Your task to perform on an android device: Go to Wikipedia Image 0: 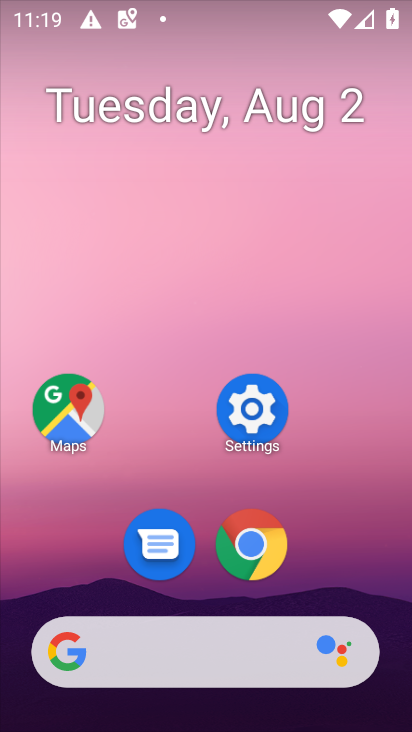
Step 0: press home button
Your task to perform on an android device: Go to Wikipedia Image 1: 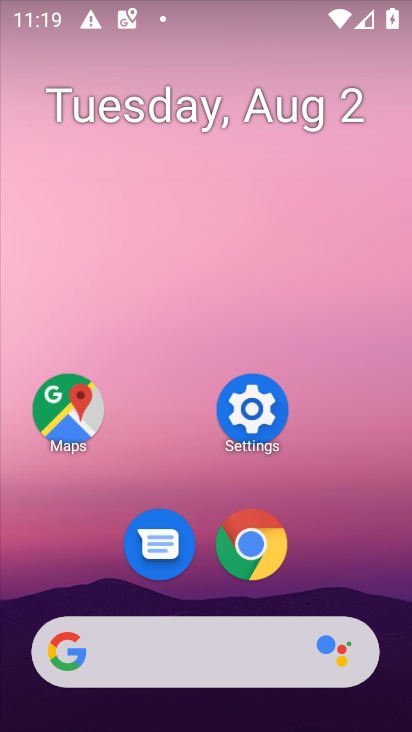
Step 1: click (253, 545)
Your task to perform on an android device: Go to Wikipedia Image 2: 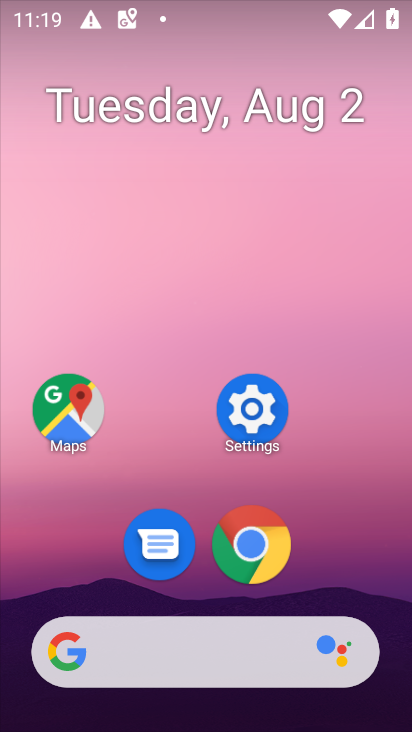
Step 2: click (253, 545)
Your task to perform on an android device: Go to Wikipedia Image 3: 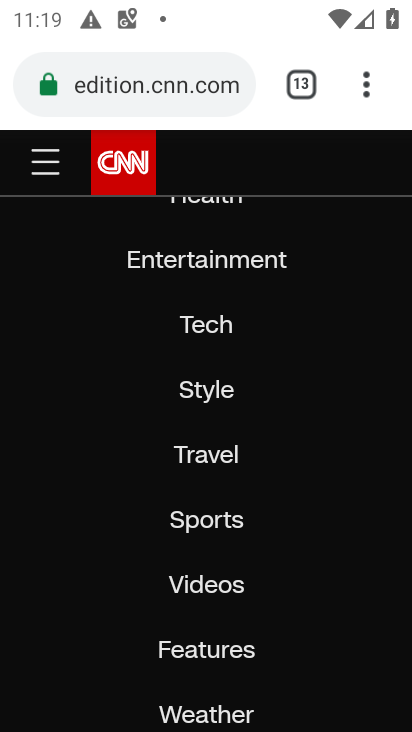
Step 3: drag from (369, 97) to (161, 176)
Your task to perform on an android device: Go to Wikipedia Image 4: 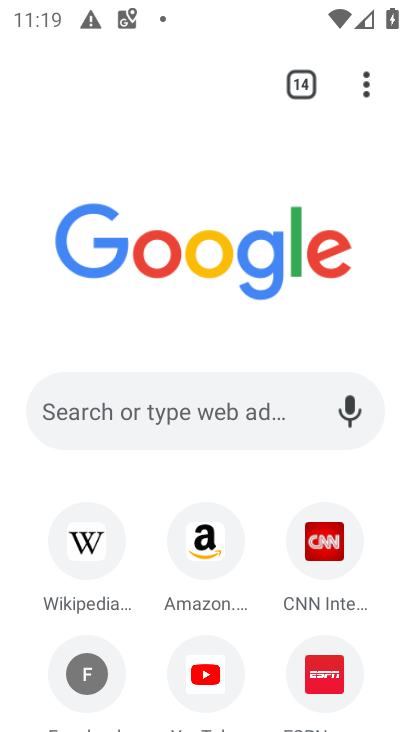
Step 4: drag from (224, 583) to (266, 294)
Your task to perform on an android device: Go to Wikipedia Image 5: 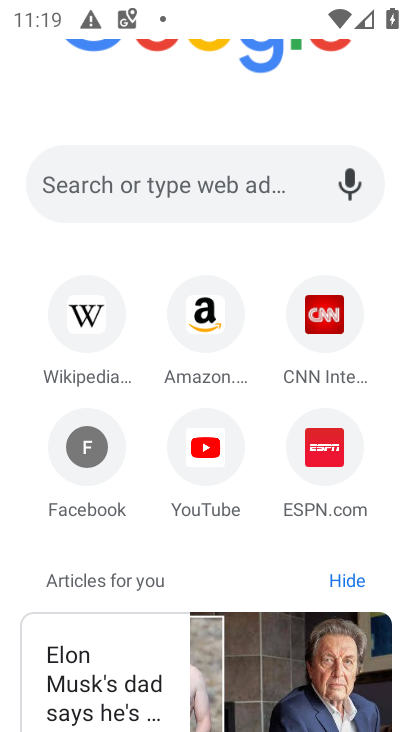
Step 5: click (84, 307)
Your task to perform on an android device: Go to Wikipedia Image 6: 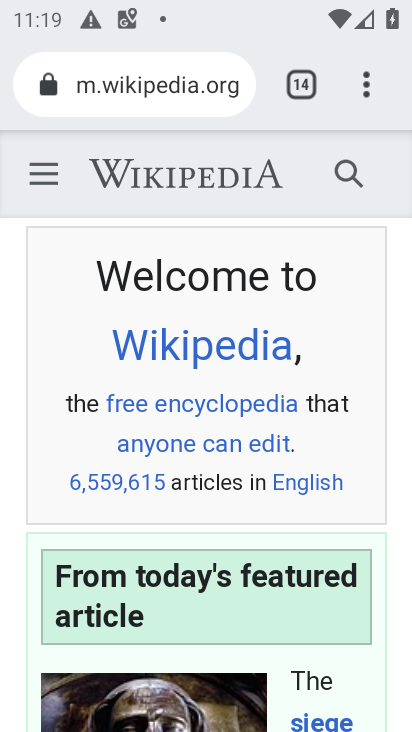
Step 6: task complete